Your task to perform on an android device: Clear the cart on target.com. Search for "apple airpods pro" on target.com, select the first entry, and add it to the cart. Image 0: 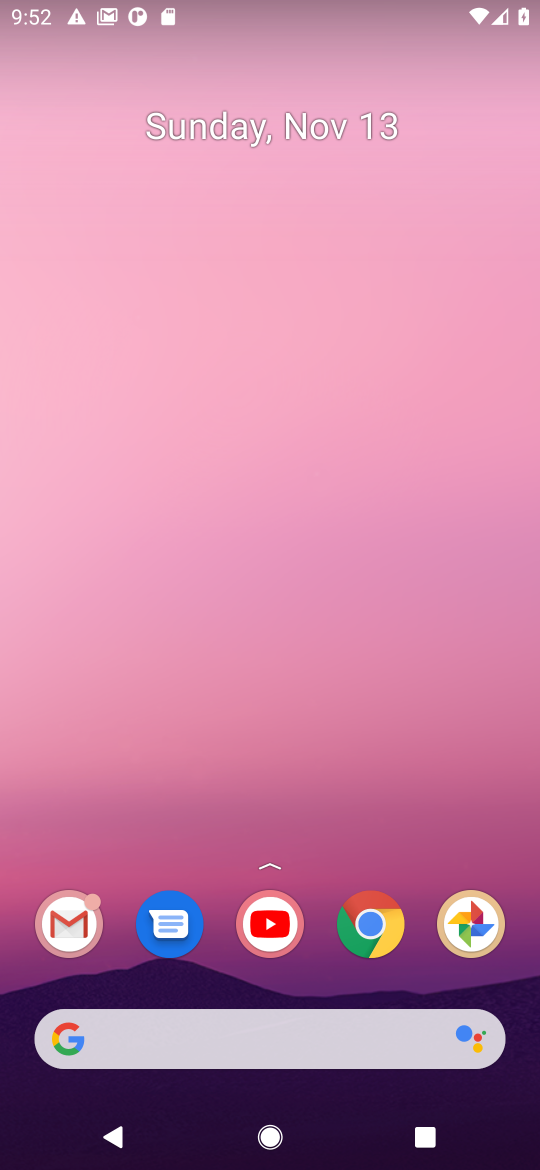
Step 0: click (366, 926)
Your task to perform on an android device: Clear the cart on target.com. Search for "apple airpods pro" on target.com, select the first entry, and add it to the cart. Image 1: 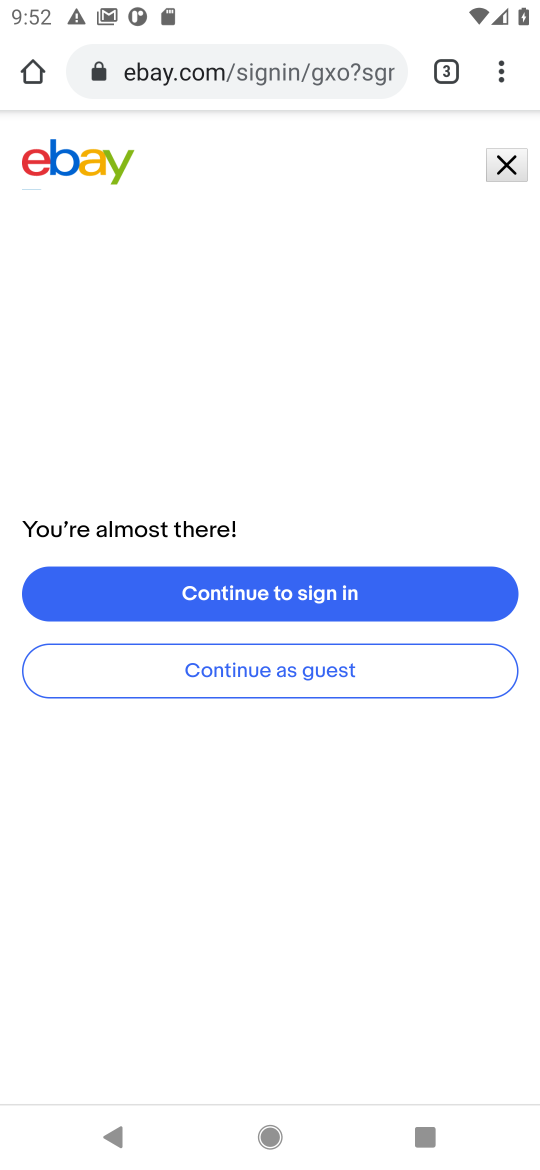
Step 1: click (220, 73)
Your task to perform on an android device: Clear the cart on target.com. Search for "apple airpods pro" on target.com, select the first entry, and add it to the cart. Image 2: 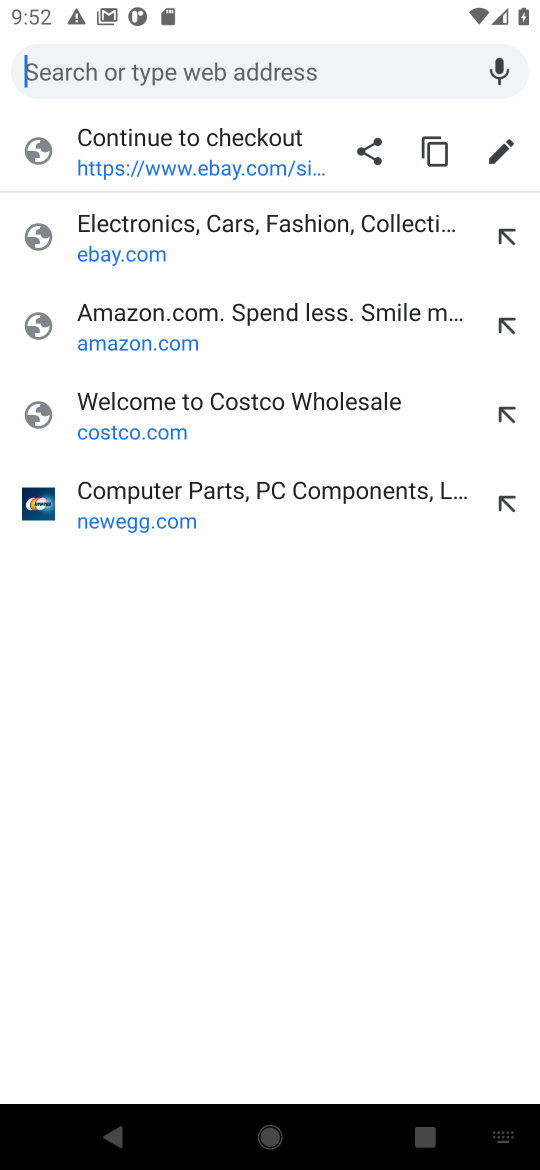
Step 2: type "target.com"
Your task to perform on an android device: Clear the cart on target.com. Search for "apple airpods pro" on target.com, select the first entry, and add it to the cart. Image 3: 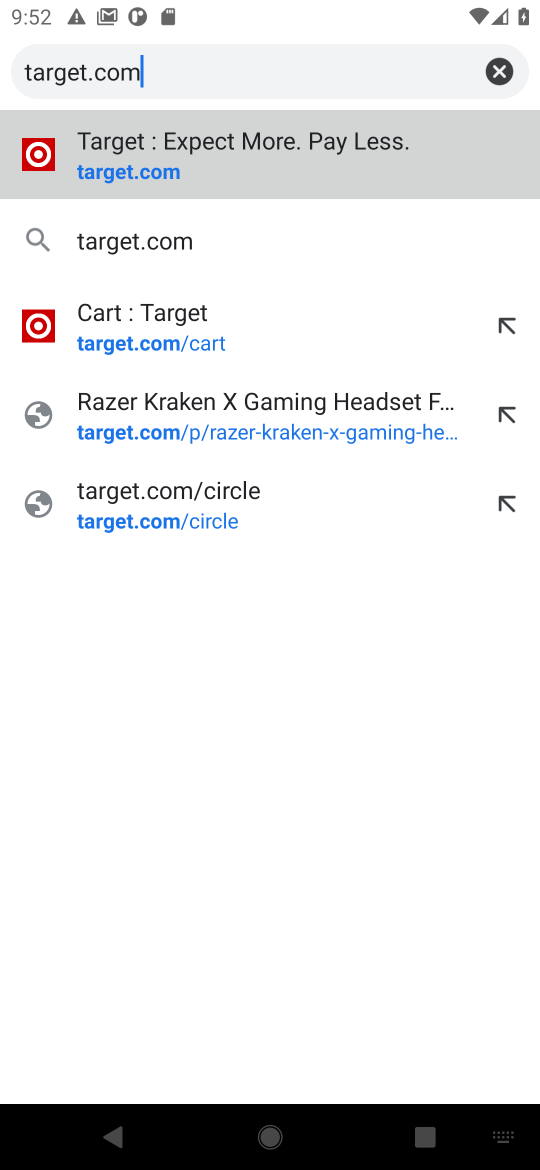
Step 3: click (99, 179)
Your task to perform on an android device: Clear the cart on target.com. Search for "apple airpods pro" on target.com, select the first entry, and add it to the cart. Image 4: 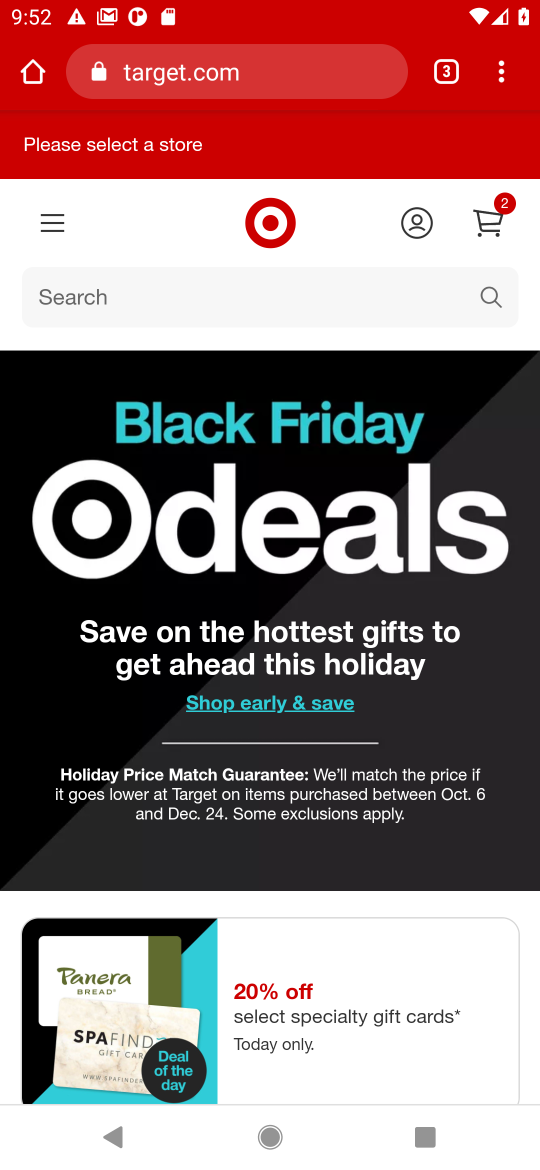
Step 4: click (503, 218)
Your task to perform on an android device: Clear the cart on target.com. Search for "apple airpods pro" on target.com, select the first entry, and add it to the cart. Image 5: 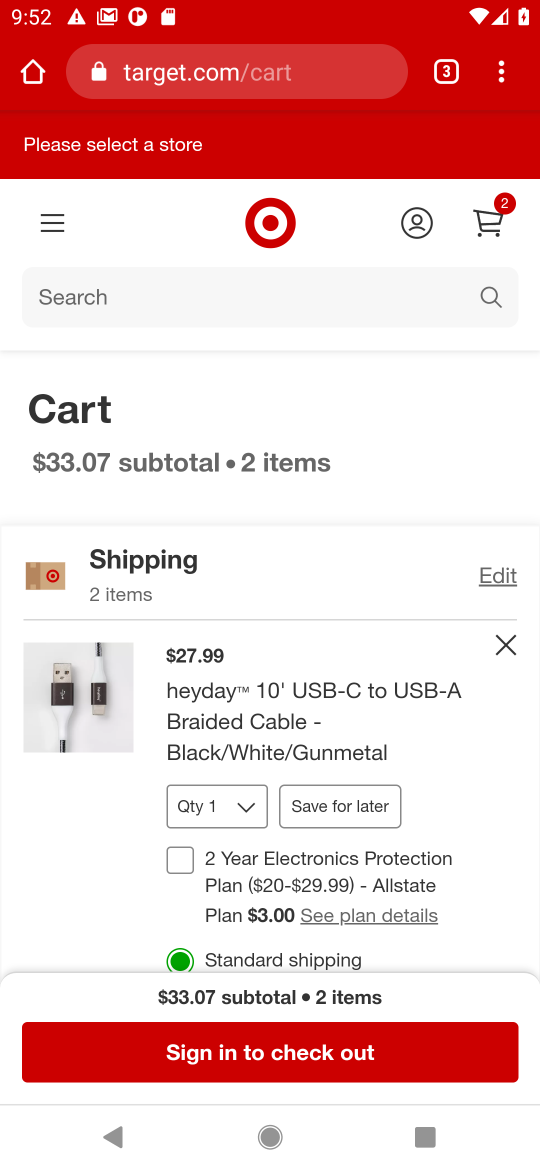
Step 5: click (504, 651)
Your task to perform on an android device: Clear the cart on target.com. Search for "apple airpods pro" on target.com, select the first entry, and add it to the cart. Image 6: 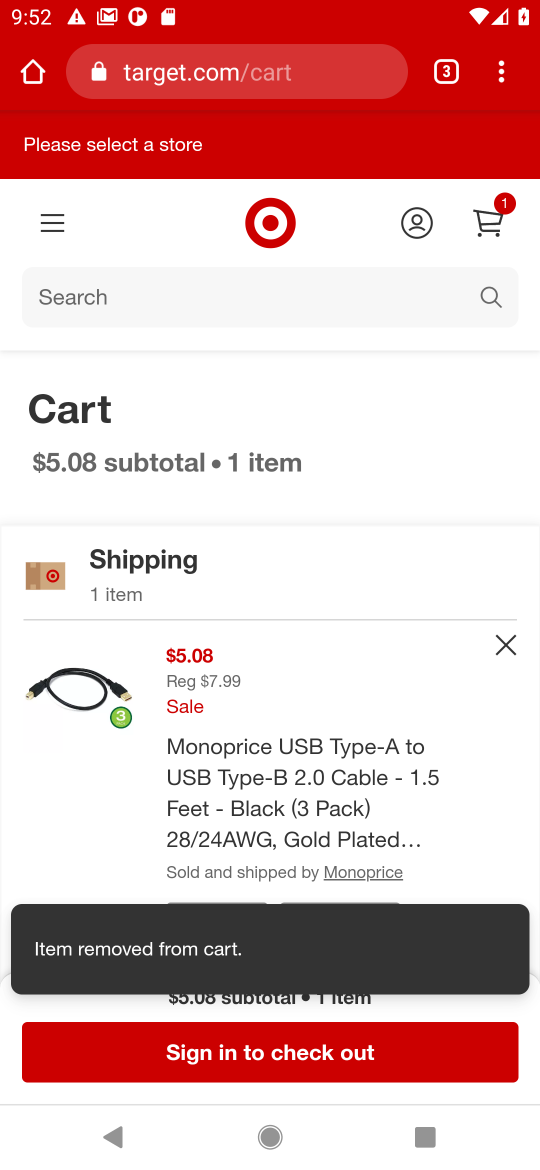
Step 6: click (504, 651)
Your task to perform on an android device: Clear the cart on target.com. Search for "apple airpods pro" on target.com, select the first entry, and add it to the cart. Image 7: 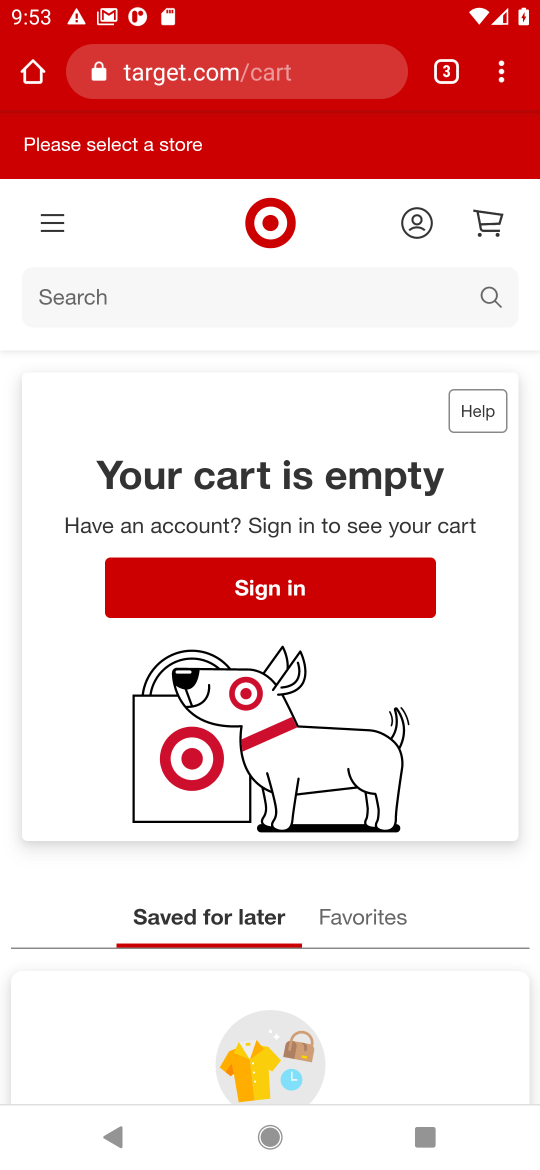
Step 7: click (481, 298)
Your task to perform on an android device: Clear the cart on target.com. Search for "apple airpods pro" on target.com, select the first entry, and add it to the cart. Image 8: 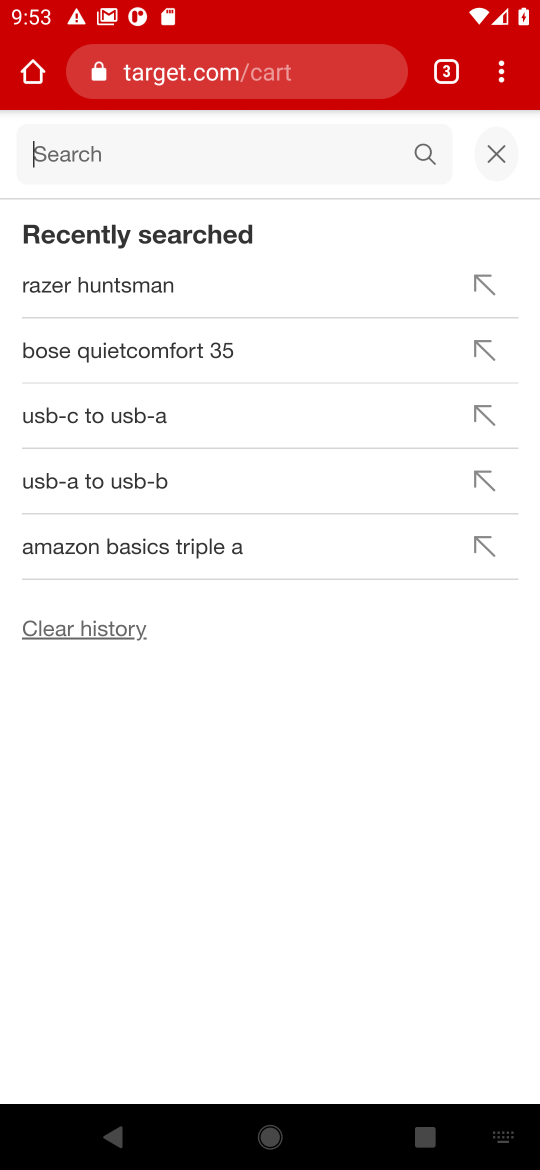
Step 8: type "apple airpods pro"
Your task to perform on an android device: Clear the cart on target.com. Search for "apple airpods pro" on target.com, select the first entry, and add it to the cart. Image 9: 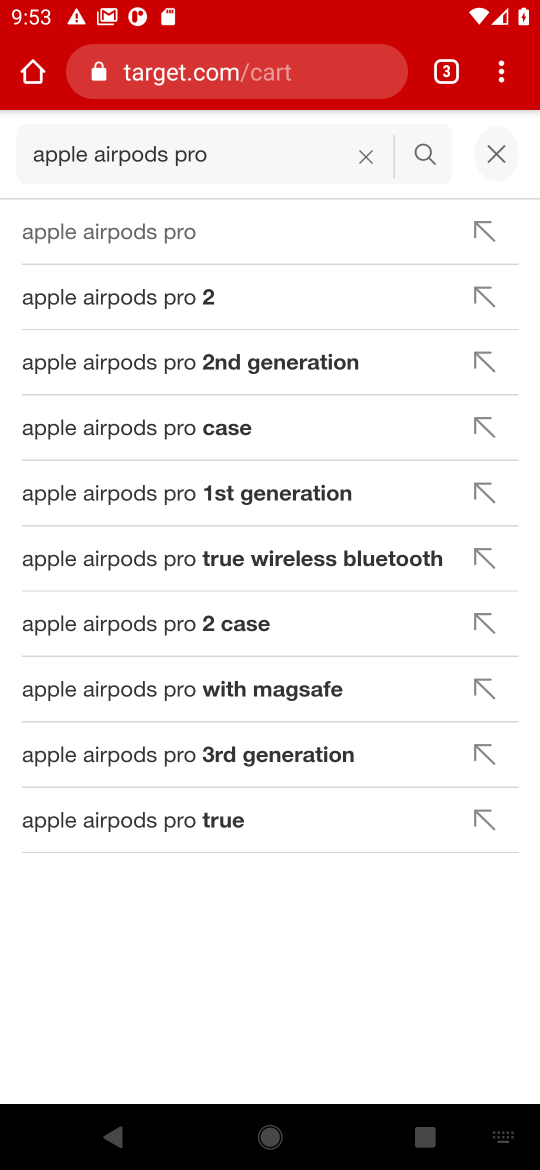
Step 9: click (118, 235)
Your task to perform on an android device: Clear the cart on target.com. Search for "apple airpods pro" on target.com, select the first entry, and add it to the cart. Image 10: 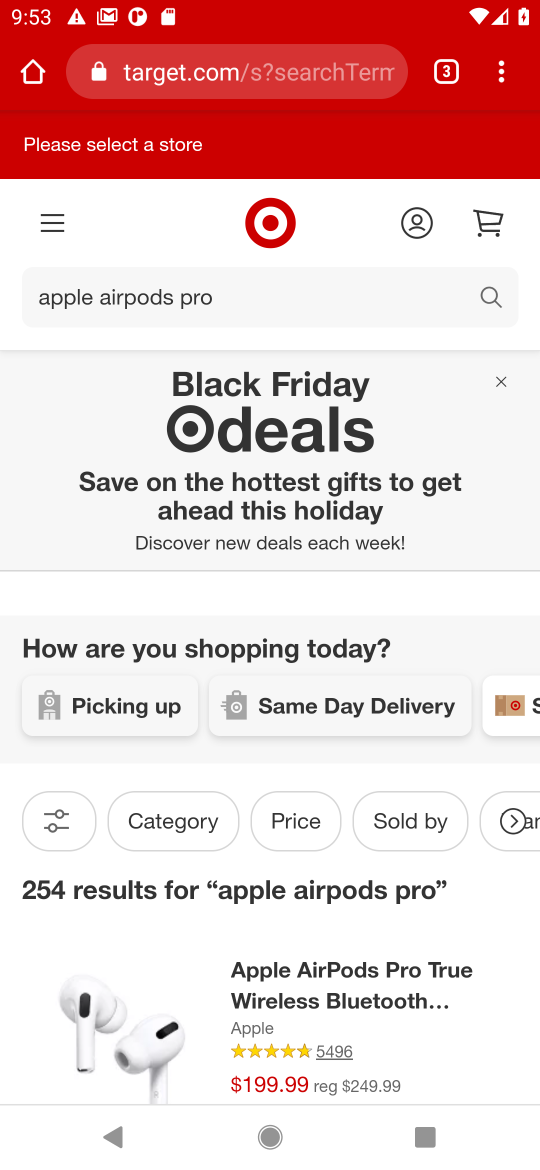
Step 10: drag from (197, 927) to (182, 587)
Your task to perform on an android device: Clear the cart on target.com. Search for "apple airpods pro" on target.com, select the first entry, and add it to the cart. Image 11: 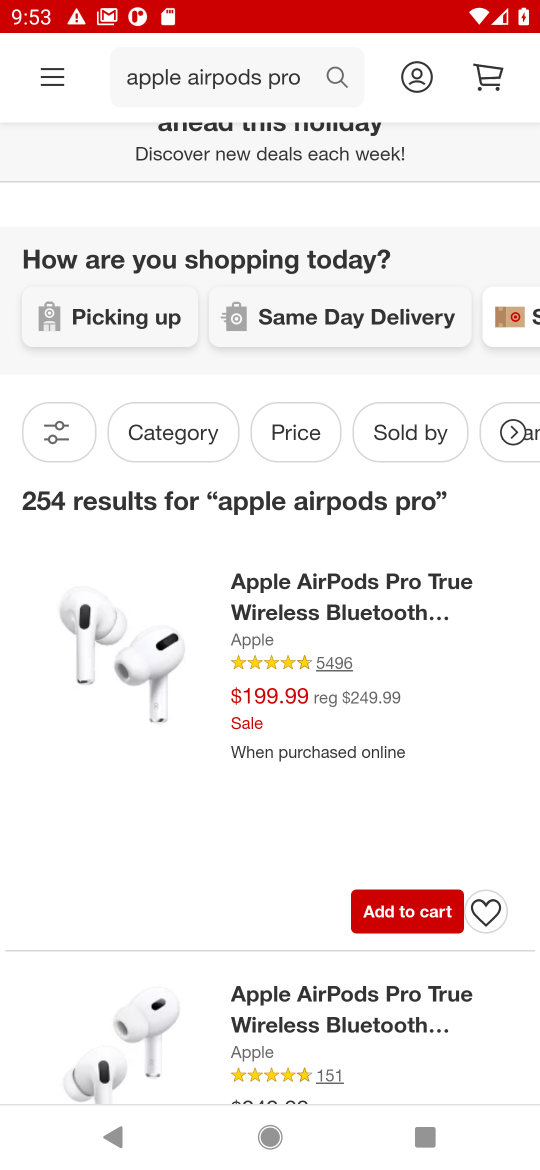
Step 11: click (380, 919)
Your task to perform on an android device: Clear the cart on target.com. Search for "apple airpods pro" on target.com, select the first entry, and add it to the cart. Image 12: 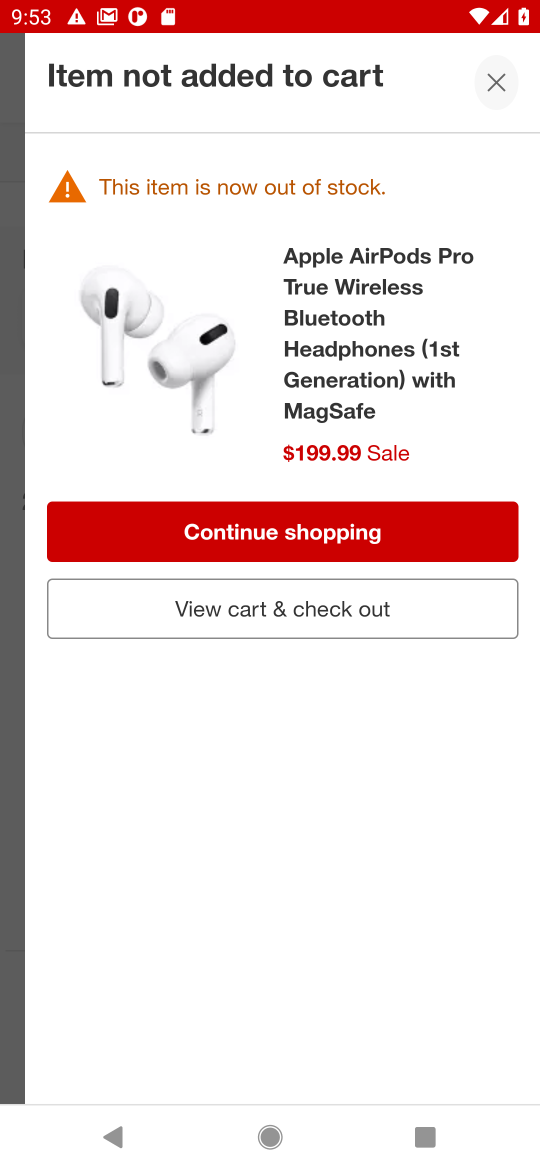
Step 12: task complete